Your task to perform on an android device: turn off wifi Image 0: 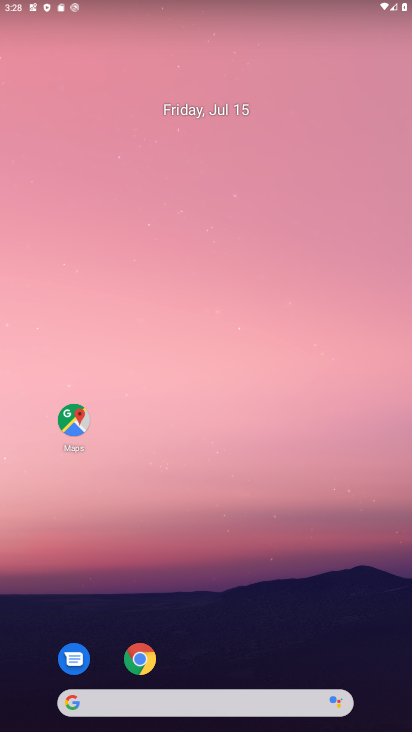
Step 0: drag from (134, 693) to (181, 499)
Your task to perform on an android device: turn off wifi Image 1: 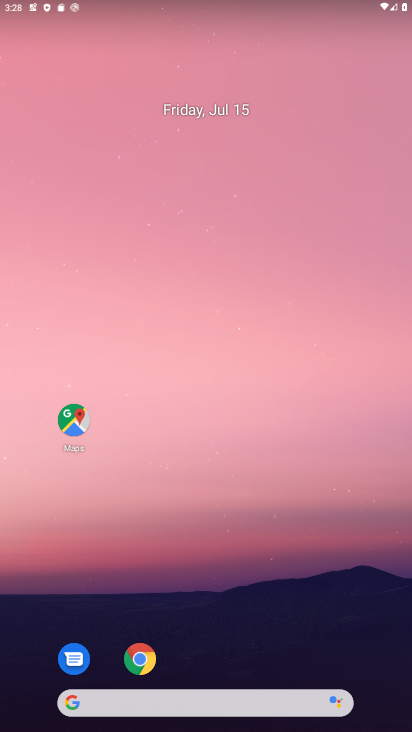
Step 1: drag from (221, 707) to (218, 342)
Your task to perform on an android device: turn off wifi Image 2: 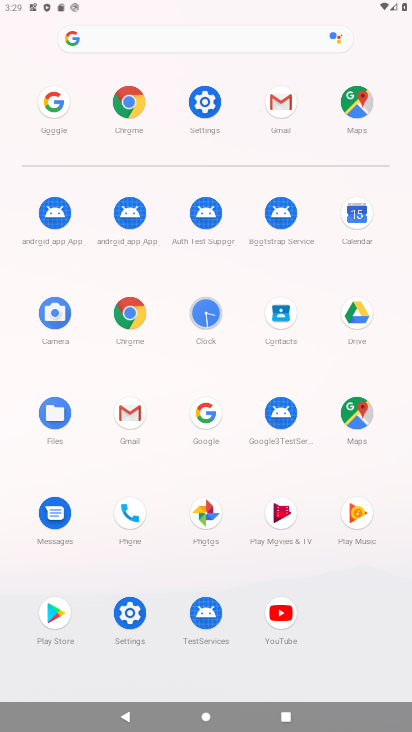
Step 2: click (206, 104)
Your task to perform on an android device: turn off wifi Image 3: 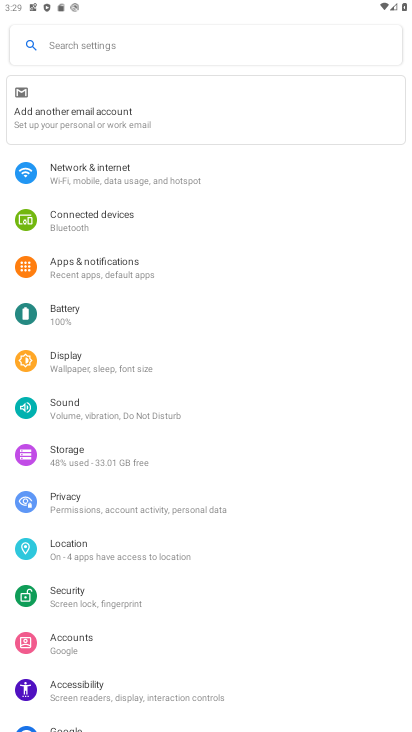
Step 3: click (122, 170)
Your task to perform on an android device: turn off wifi Image 4: 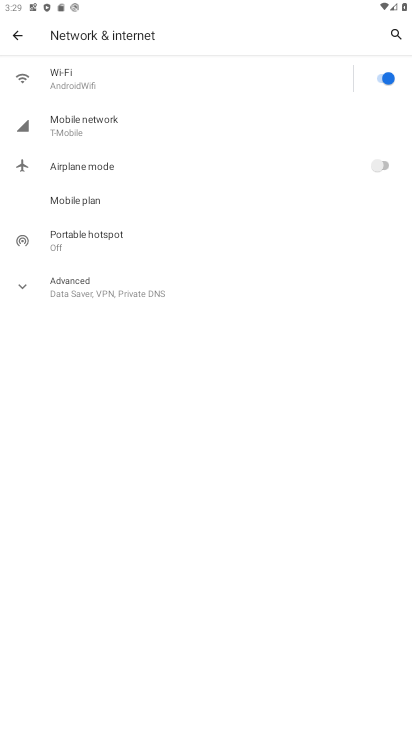
Step 4: click (92, 65)
Your task to perform on an android device: turn off wifi Image 5: 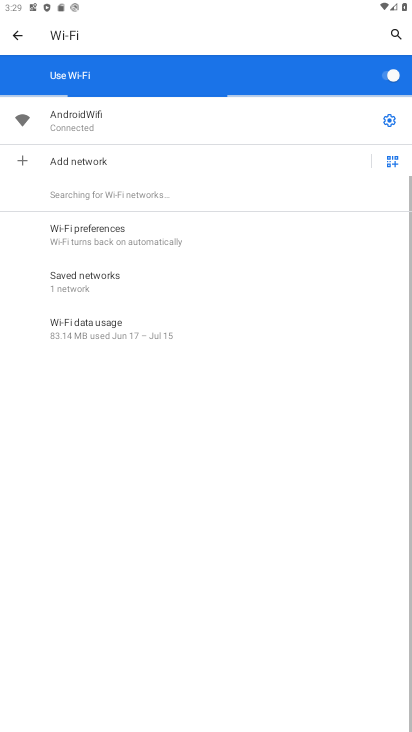
Step 5: click (391, 69)
Your task to perform on an android device: turn off wifi Image 6: 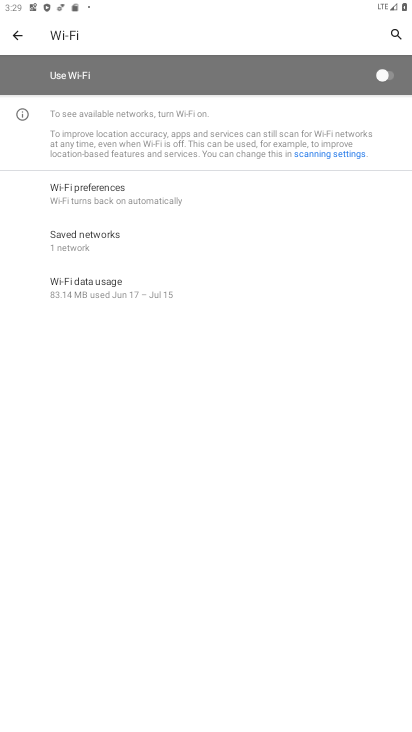
Step 6: task complete